Your task to perform on an android device: check the backup settings in the google photos Image 0: 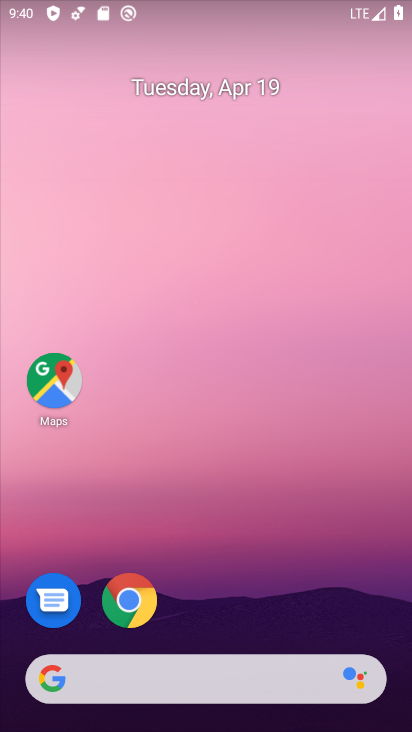
Step 0: drag from (344, 570) to (337, 286)
Your task to perform on an android device: check the backup settings in the google photos Image 1: 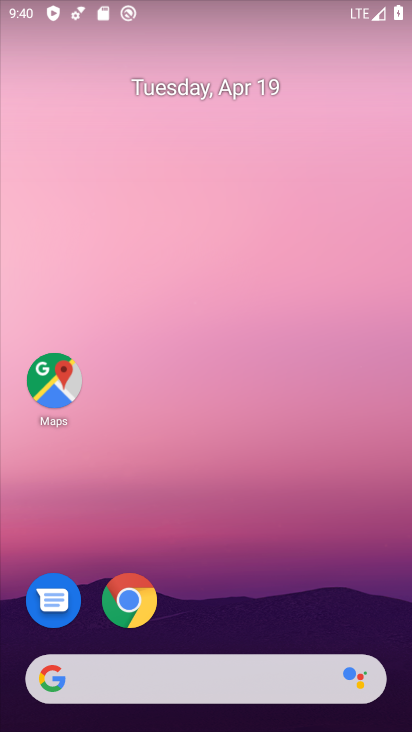
Step 1: drag from (401, 626) to (342, 167)
Your task to perform on an android device: check the backup settings in the google photos Image 2: 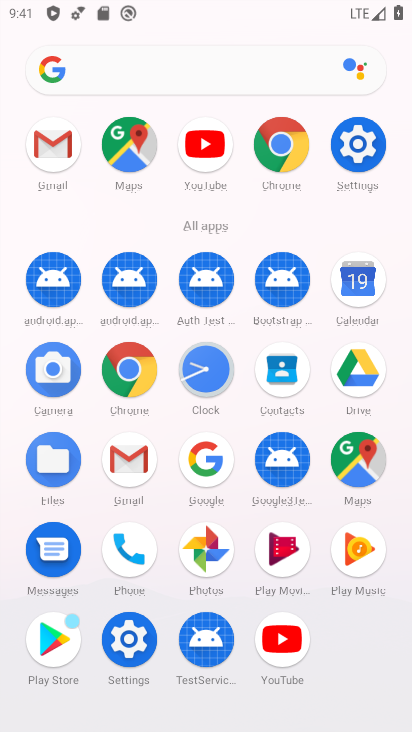
Step 2: click (211, 559)
Your task to perform on an android device: check the backup settings in the google photos Image 3: 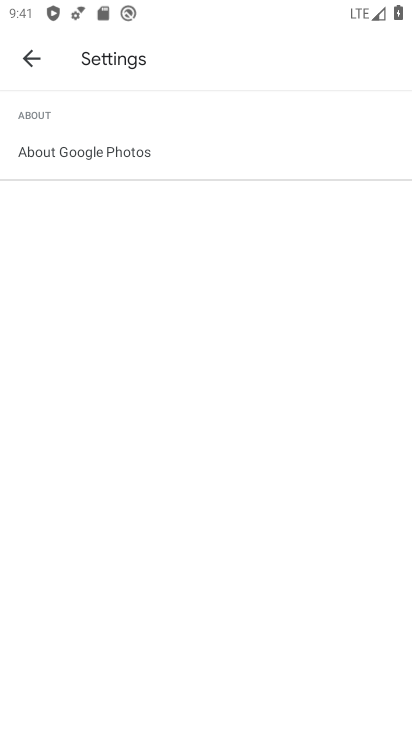
Step 3: press back button
Your task to perform on an android device: check the backup settings in the google photos Image 4: 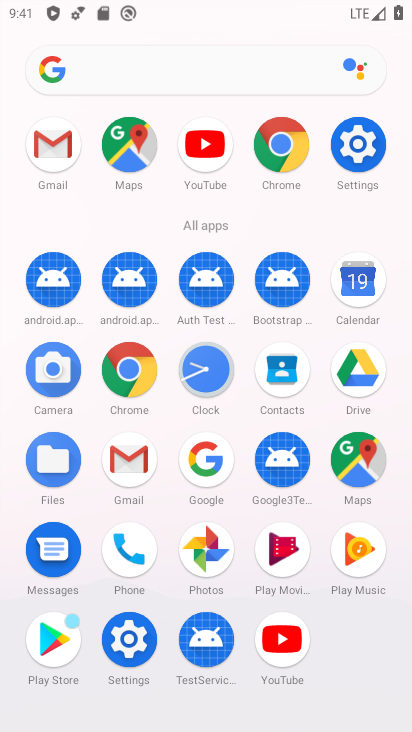
Step 4: click (203, 559)
Your task to perform on an android device: check the backup settings in the google photos Image 5: 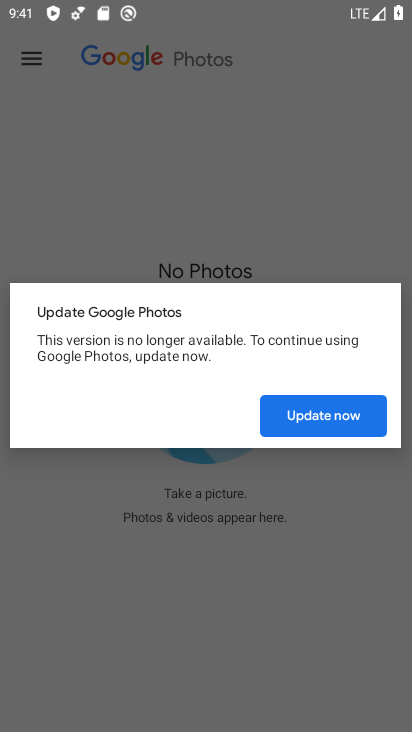
Step 5: click (317, 420)
Your task to perform on an android device: check the backup settings in the google photos Image 6: 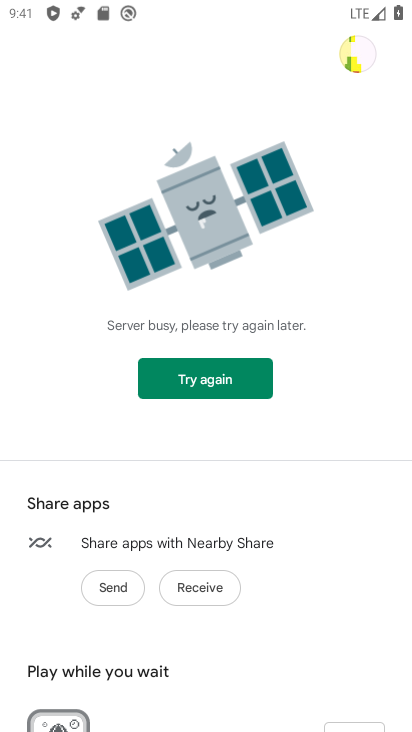
Step 6: task complete